Your task to perform on an android device: turn off notifications settings in the gmail app Image 0: 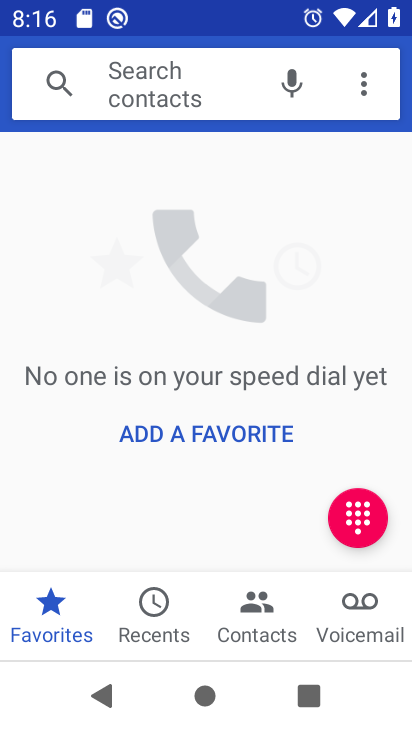
Step 0: press home button
Your task to perform on an android device: turn off notifications settings in the gmail app Image 1: 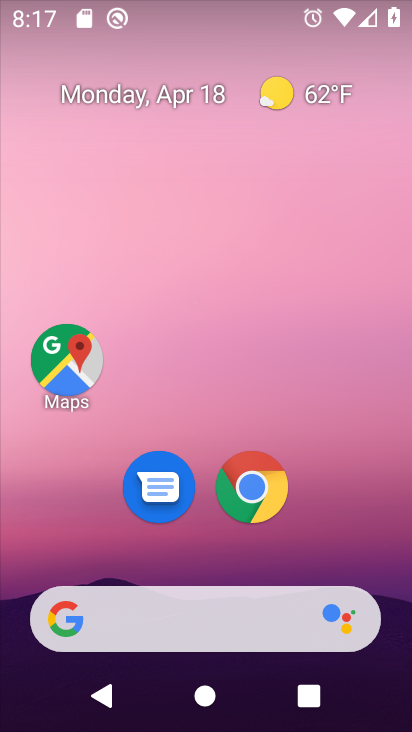
Step 1: drag from (205, 549) to (196, 119)
Your task to perform on an android device: turn off notifications settings in the gmail app Image 2: 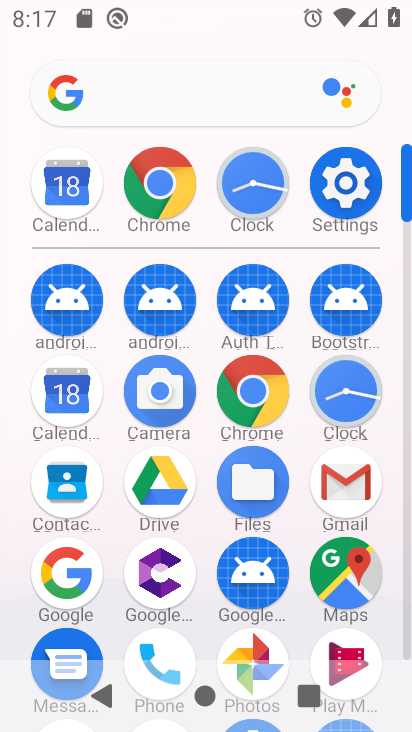
Step 2: click (343, 477)
Your task to perform on an android device: turn off notifications settings in the gmail app Image 3: 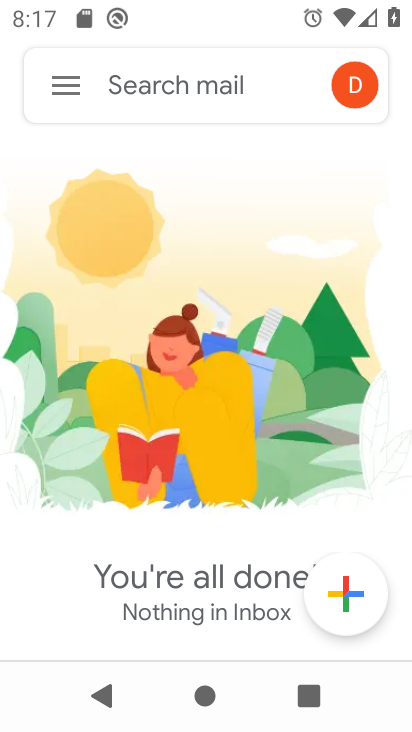
Step 3: click (57, 75)
Your task to perform on an android device: turn off notifications settings in the gmail app Image 4: 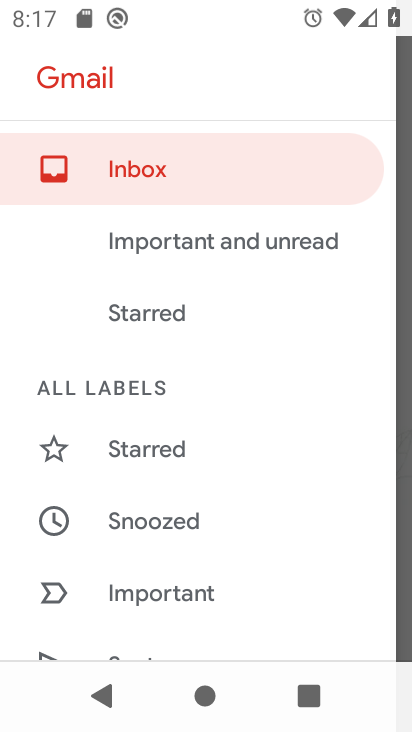
Step 4: drag from (185, 599) to (200, 84)
Your task to perform on an android device: turn off notifications settings in the gmail app Image 5: 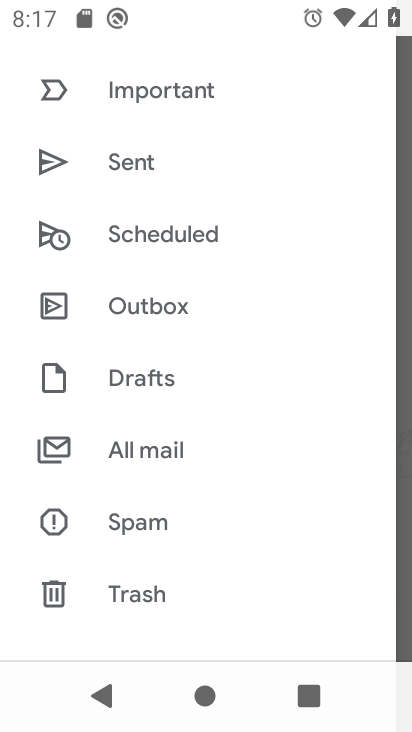
Step 5: drag from (168, 611) to (169, 124)
Your task to perform on an android device: turn off notifications settings in the gmail app Image 6: 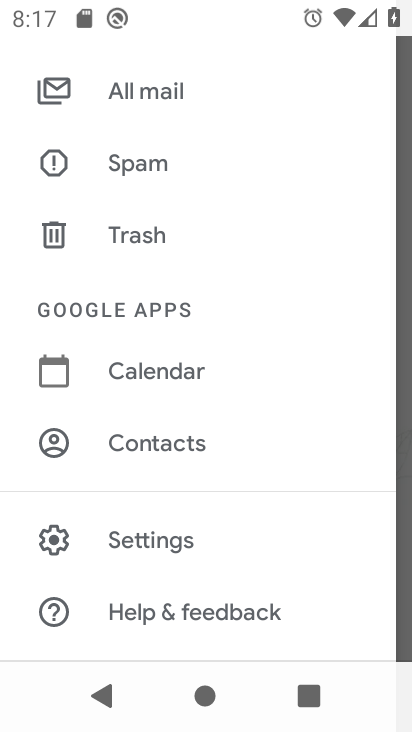
Step 6: click (209, 533)
Your task to perform on an android device: turn off notifications settings in the gmail app Image 7: 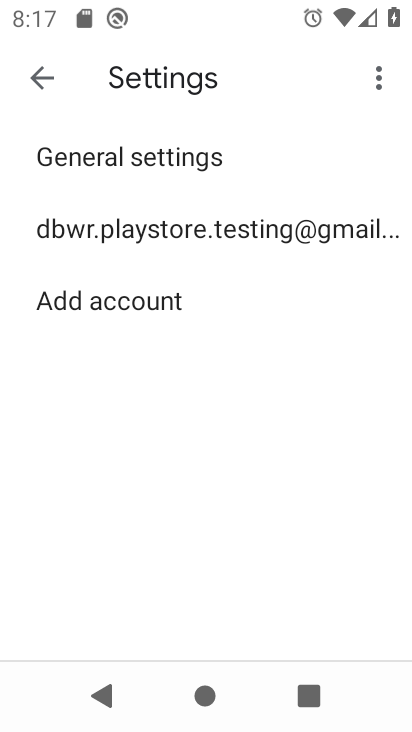
Step 7: click (238, 150)
Your task to perform on an android device: turn off notifications settings in the gmail app Image 8: 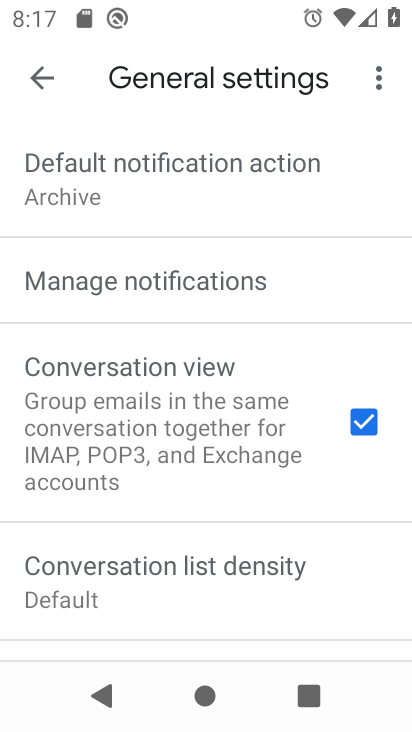
Step 8: click (241, 294)
Your task to perform on an android device: turn off notifications settings in the gmail app Image 9: 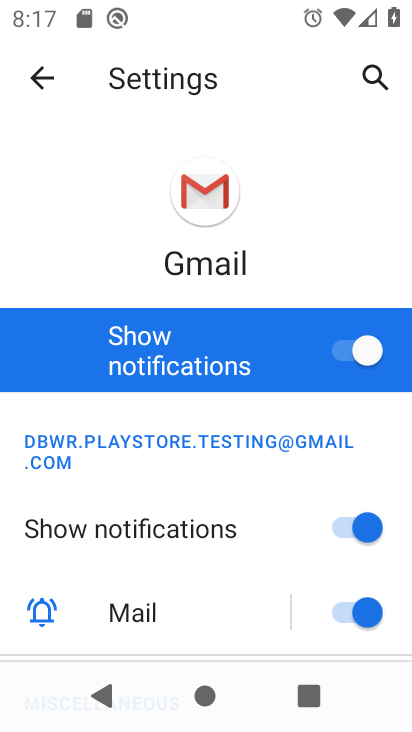
Step 9: click (349, 348)
Your task to perform on an android device: turn off notifications settings in the gmail app Image 10: 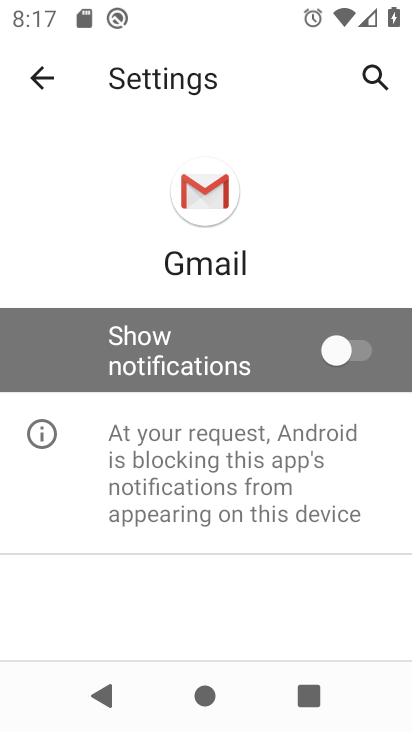
Step 10: task complete